Your task to perform on an android device: search for starred emails in the gmail app Image 0: 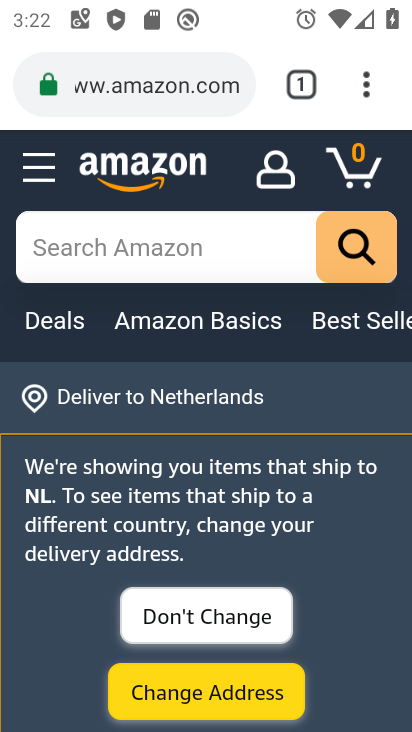
Step 0: press home button
Your task to perform on an android device: search for starred emails in the gmail app Image 1: 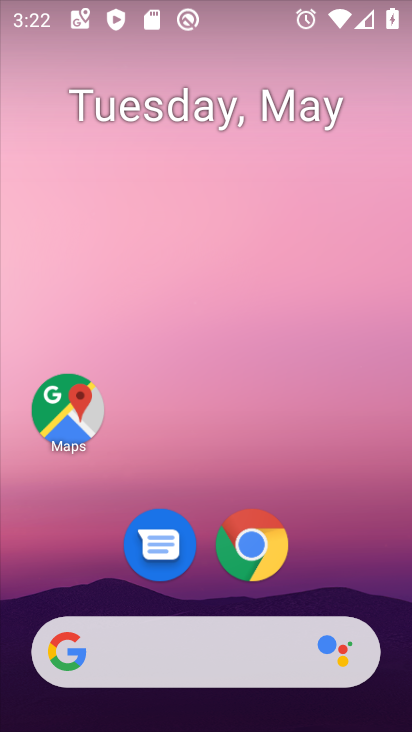
Step 1: drag from (232, 617) to (244, 170)
Your task to perform on an android device: search for starred emails in the gmail app Image 2: 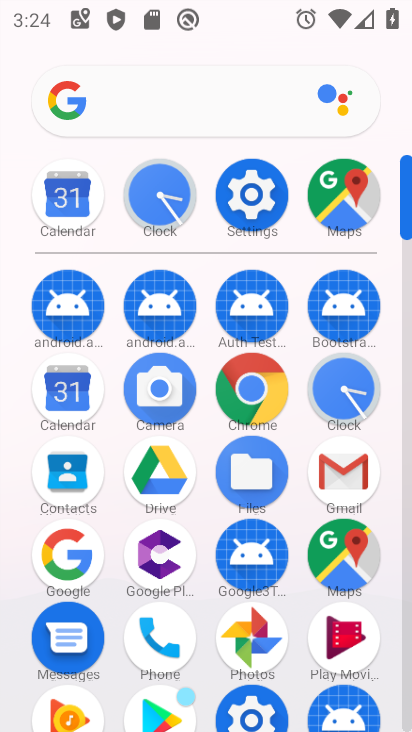
Step 2: click (356, 485)
Your task to perform on an android device: search for starred emails in the gmail app Image 3: 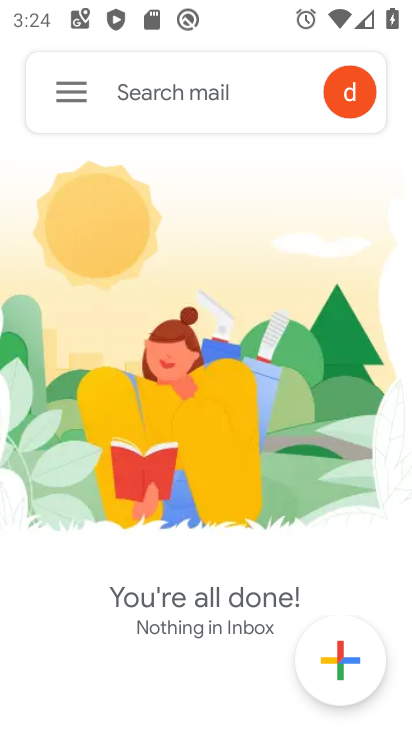
Step 3: click (73, 99)
Your task to perform on an android device: search for starred emails in the gmail app Image 4: 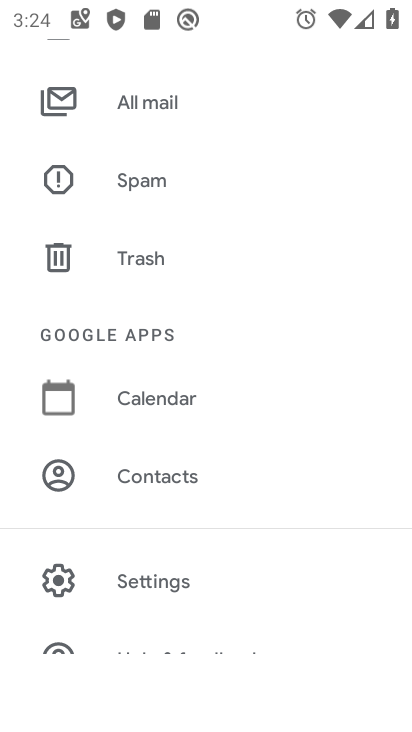
Step 4: drag from (193, 174) to (199, 625)
Your task to perform on an android device: search for starred emails in the gmail app Image 5: 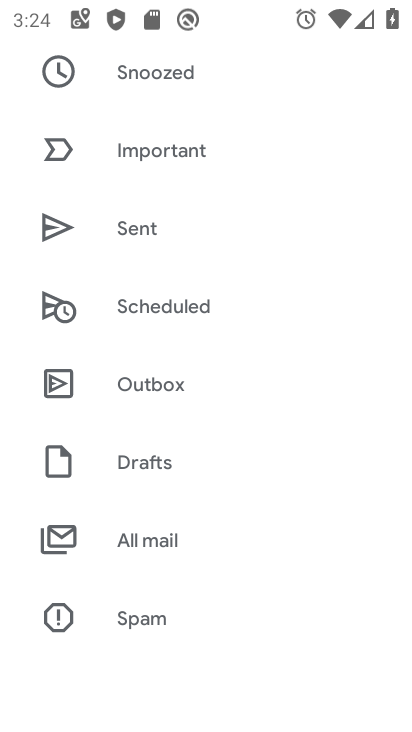
Step 5: drag from (209, 334) to (180, 688)
Your task to perform on an android device: search for starred emails in the gmail app Image 6: 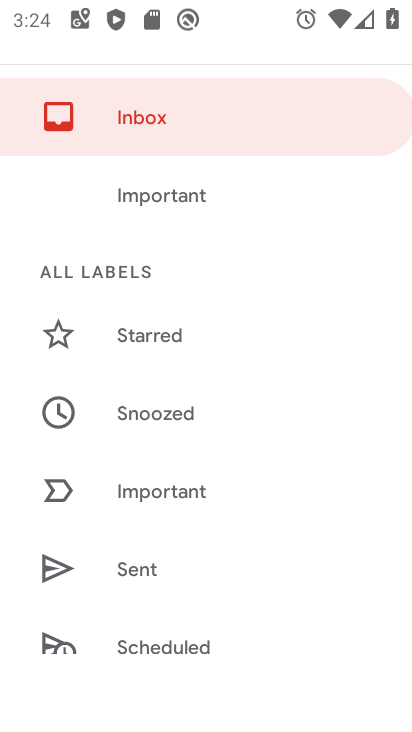
Step 6: click (159, 343)
Your task to perform on an android device: search for starred emails in the gmail app Image 7: 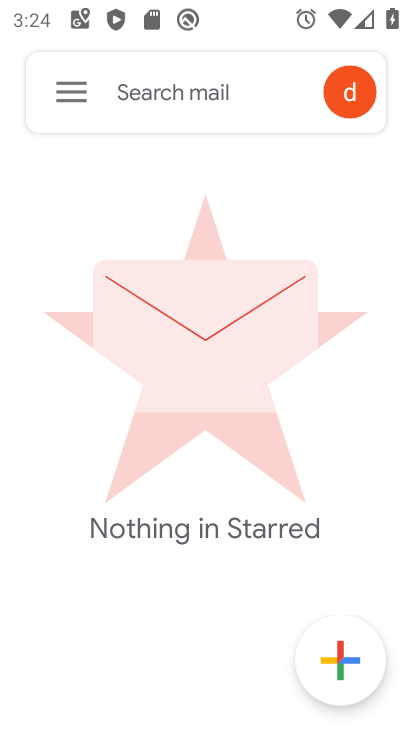
Step 7: task complete